Your task to perform on an android device: When is my next meeting? Image 0: 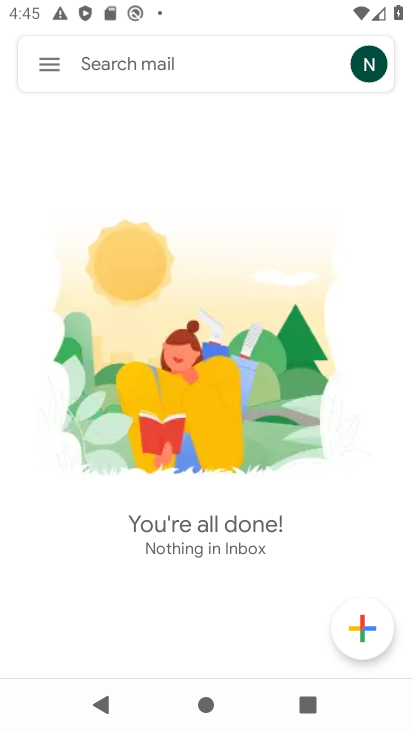
Step 0: press back button
Your task to perform on an android device: When is my next meeting? Image 1: 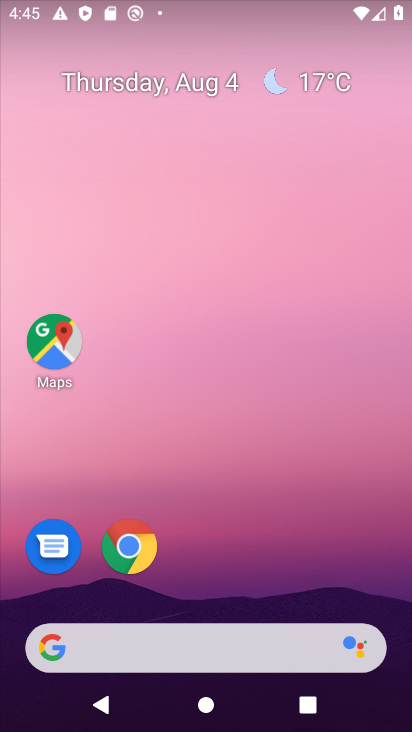
Step 1: drag from (144, 247) to (156, 95)
Your task to perform on an android device: When is my next meeting? Image 2: 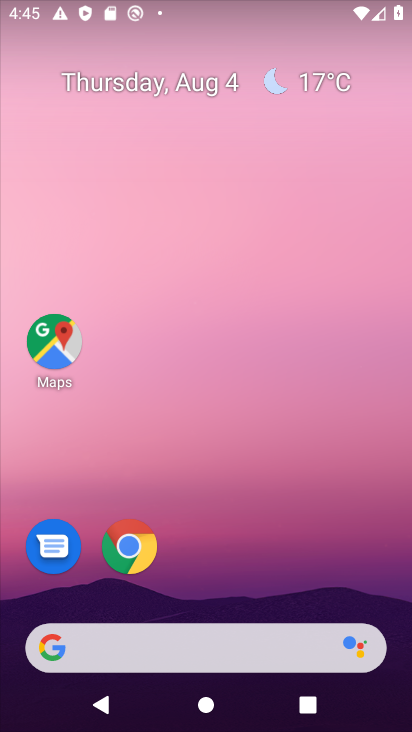
Step 2: drag from (206, 469) to (317, 47)
Your task to perform on an android device: When is my next meeting? Image 3: 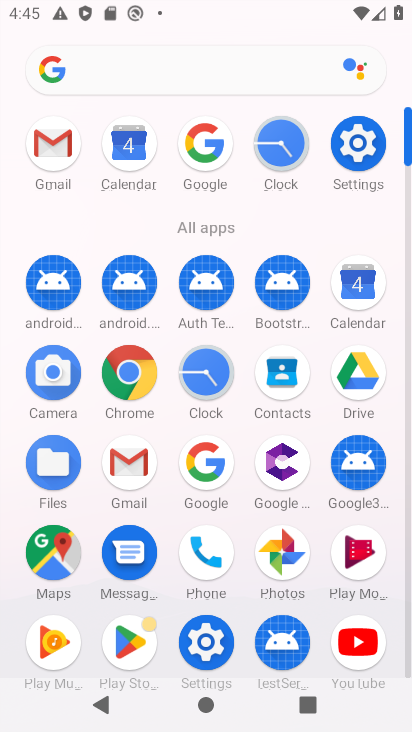
Step 3: click (354, 319)
Your task to perform on an android device: When is my next meeting? Image 4: 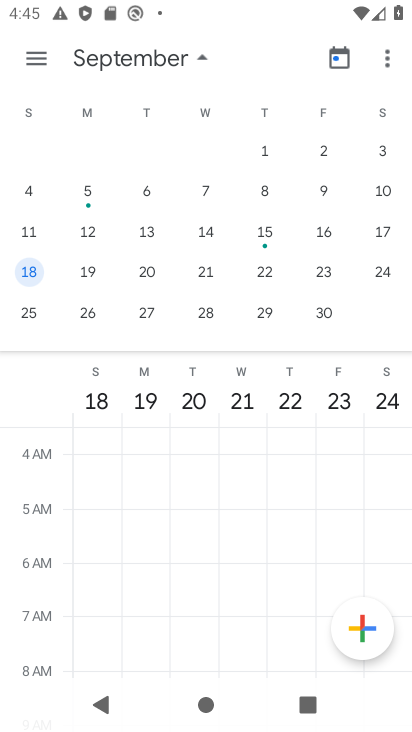
Step 4: task complete